Your task to perform on an android device: Open Android settings Image 0: 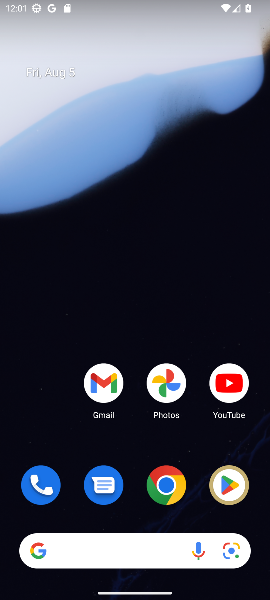
Step 0: drag from (48, 427) to (16, 26)
Your task to perform on an android device: Open Android settings Image 1: 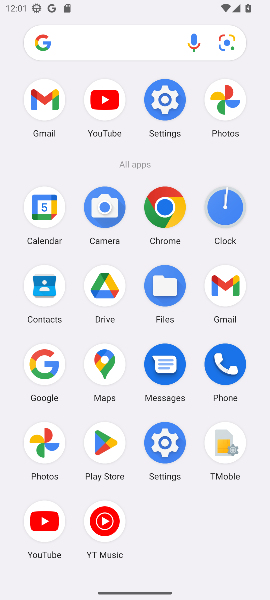
Step 1: click (161, 103)
Your task to perform on an android device: Open Android settings Image 2: 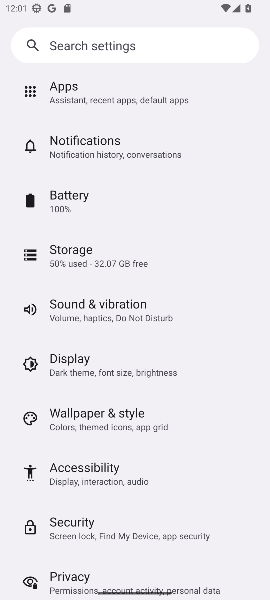
Step 2: task complete